Your task to perform on an android device: Open CNN.com Image 0: 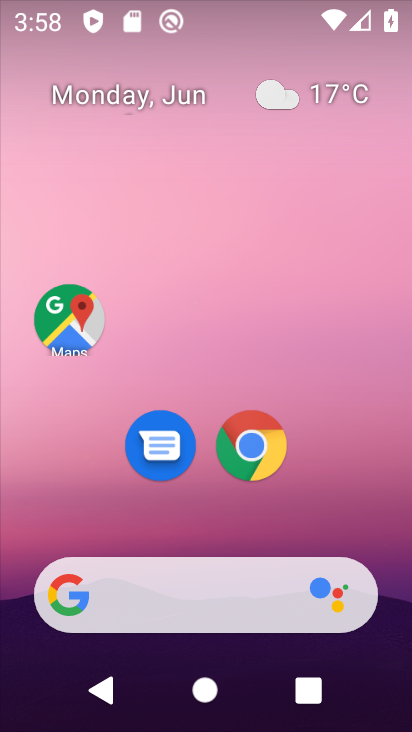
Step 0: click (244, 451)
Your task to perform on an android device: Open CNN.com Image 1: 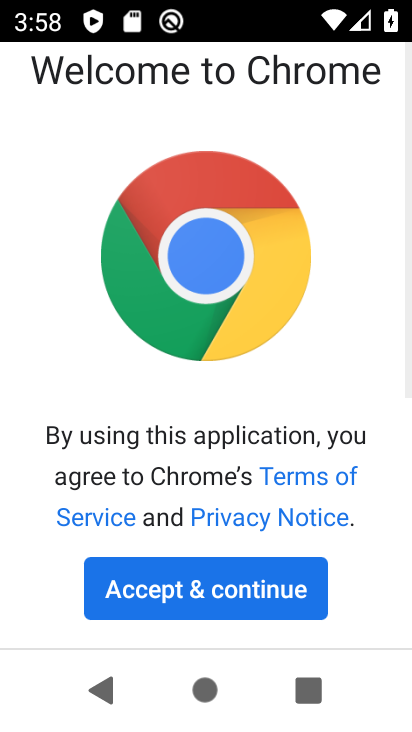
Step 1: click (192, 596)
Your task to perform on an android device: Open CNN.com Image 2: 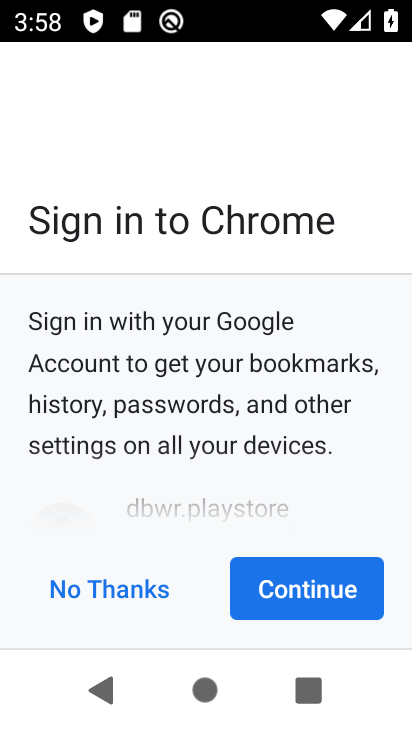
Step 2: click (305, 592)
Your task to perform on an android device: Open CNN.com Image 3: 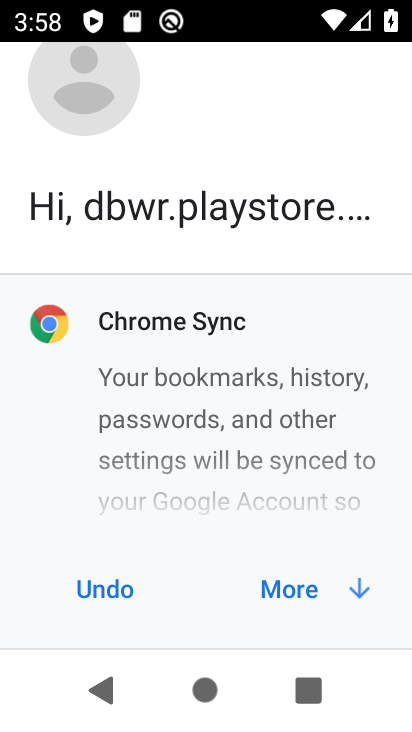
Step 3: click (305, 592)
Your task to perform on an android device: Open CNN.com Image 4: 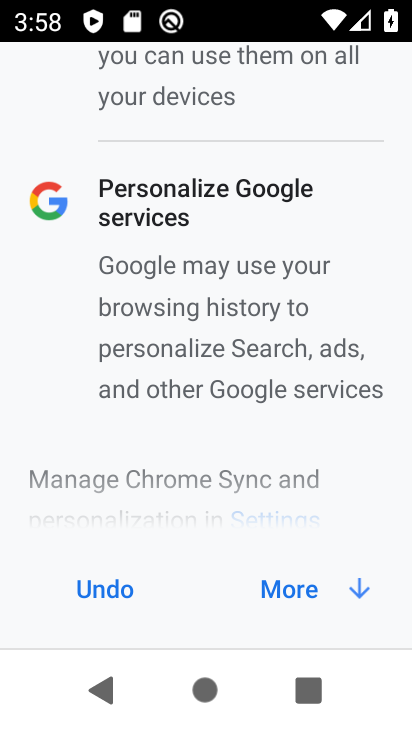
Step 4: click (305, 592)
Your task to perform on an android device: Open CNN.com Image 5: 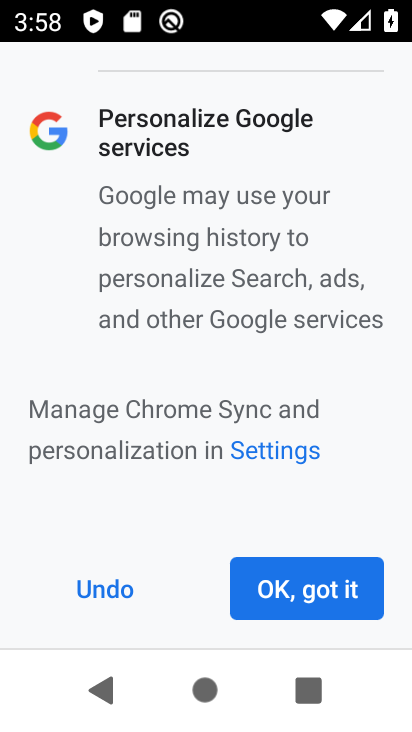
Step 5: click (305, 592)
Your task to perform on an android device: Open CNN.com Image 6: 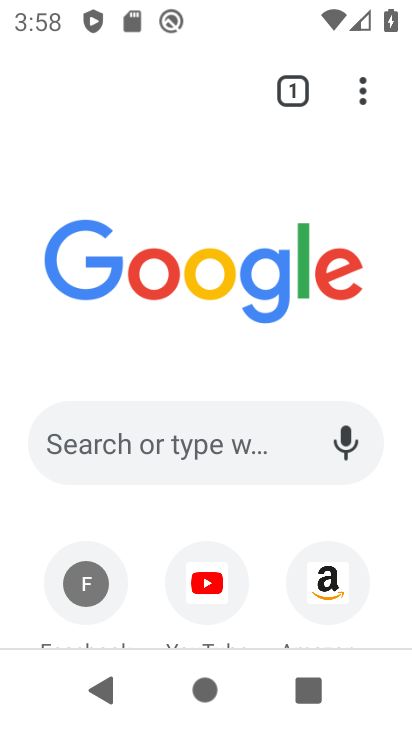
Step 6: click (200, 441)
Your task to perform on an android device: Open CNN.com Image 7: 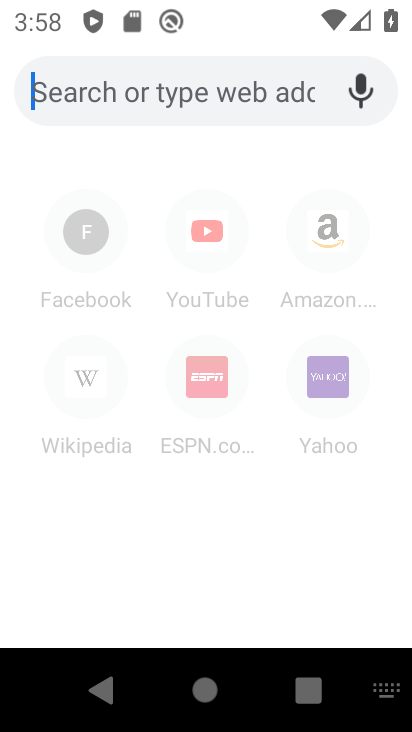
Step 7: type "www.cnn.com"
Your task to perform on an android device: Open CNN.com Image 8: 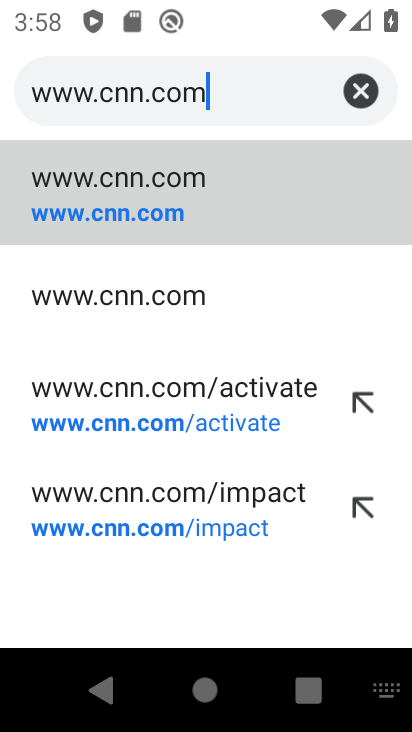
Step 8: click (156, 220)
Your task to perform on an android device: Open CNN.com Image 9: 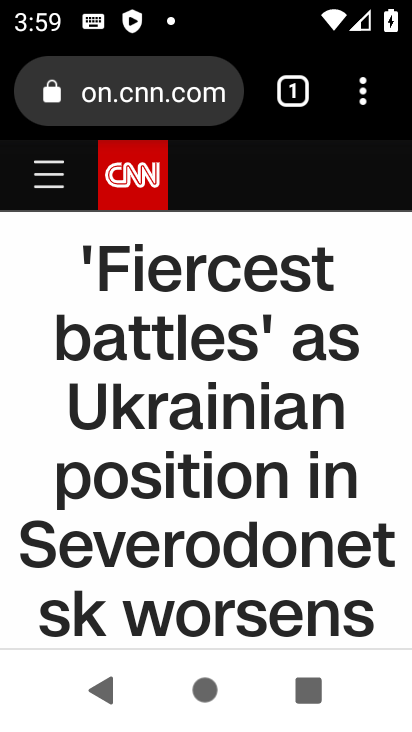
Step 9: task complete